Your task to perform on an android device: turn on translation in the chrome app Image 0: 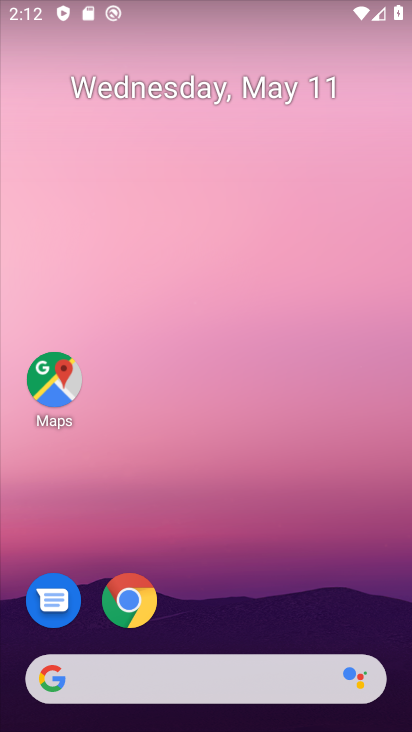
Step 0: click (131, 609)
Your task to perform on an android device: turn on translation in the chrome app Image 1: 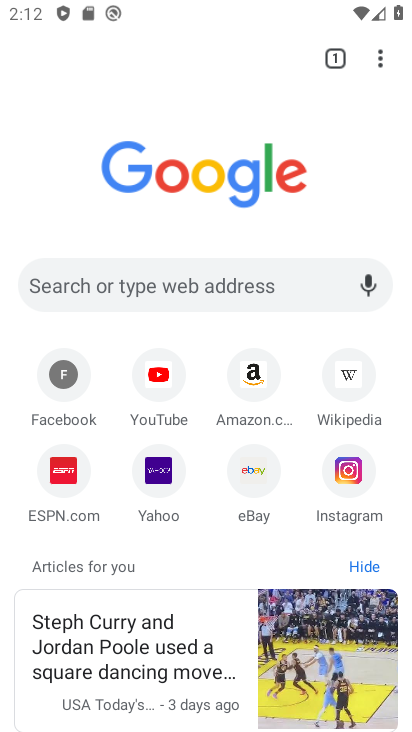
Step 1: click (388, 51)
Your task to perform on an android device: turn on translation in the chrome app Image 2: 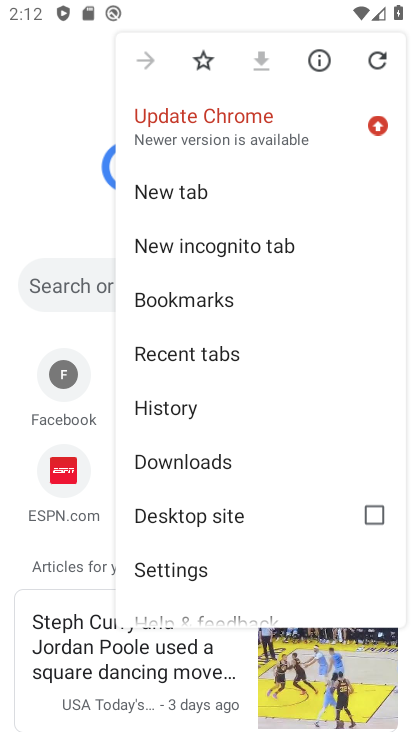
Step 2: click (200, 570)
Your task to perform on an android device: turn on translation in the chrome app Image 3: 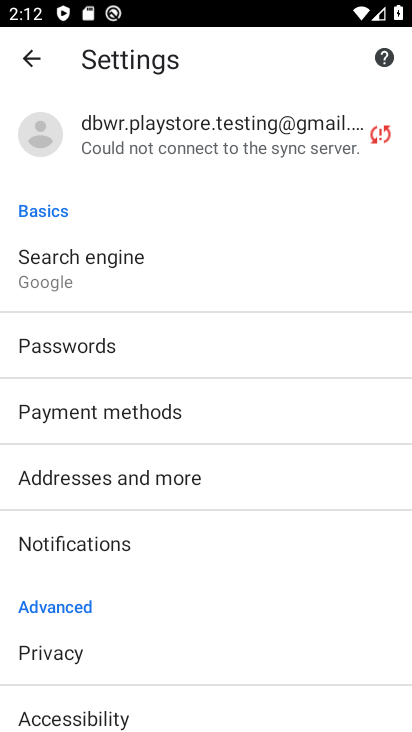
Step 3: drag from (154, 581) to (200, 239)
Your task to perform on an android device: turn on translation in the chrome app Image 4: 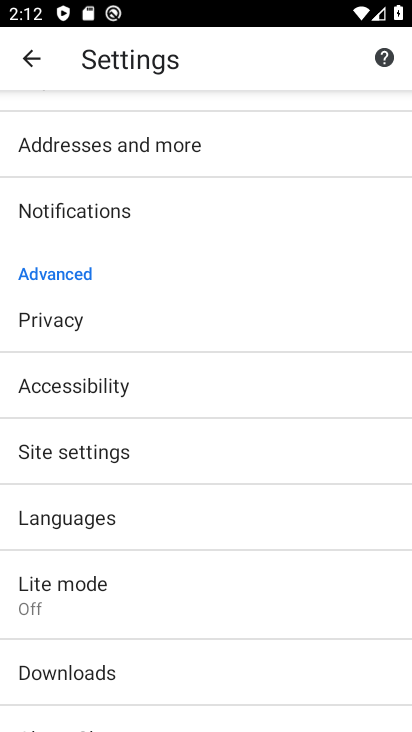
Step 4: click (97, 527)
Your task to perform on an android device: turn on translation in the chrome app Image 5: 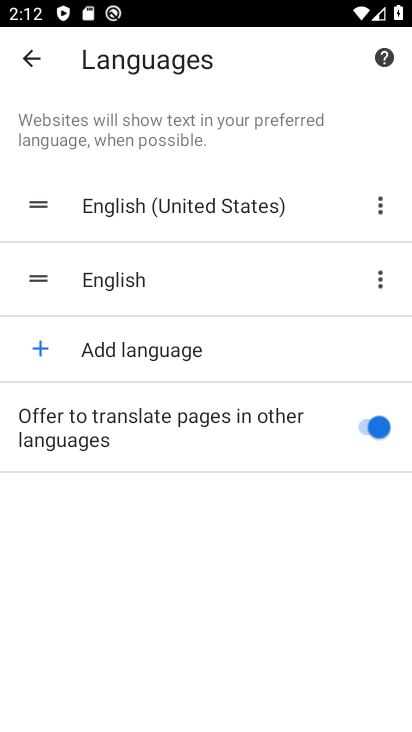
Step 5: task complete